Your task to perform on an android device: turn on airplane mode Image 0: 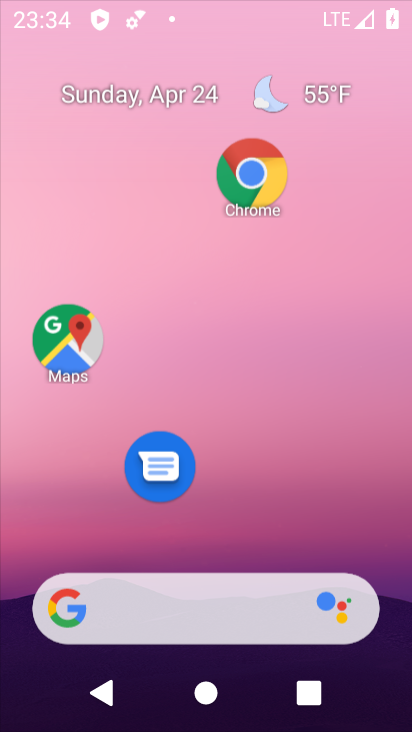
Step 0: drag from (237, 274) to (240, 47)
Your task to perform on an android device: turn on airplane mode Image 1: 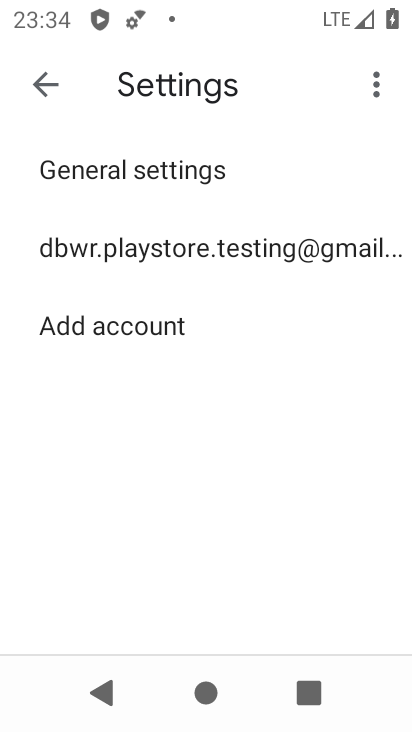
Step 1: press home button
Your task to perform on an android device: turn on airplane mode Image 2: 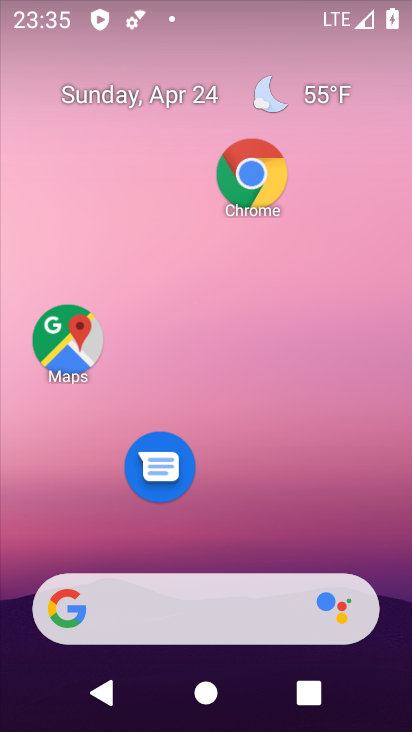
Step 2: drag from (221, 476) to (237, 56)
Your task to perform on an android device: turn on airplane mode Image 3: 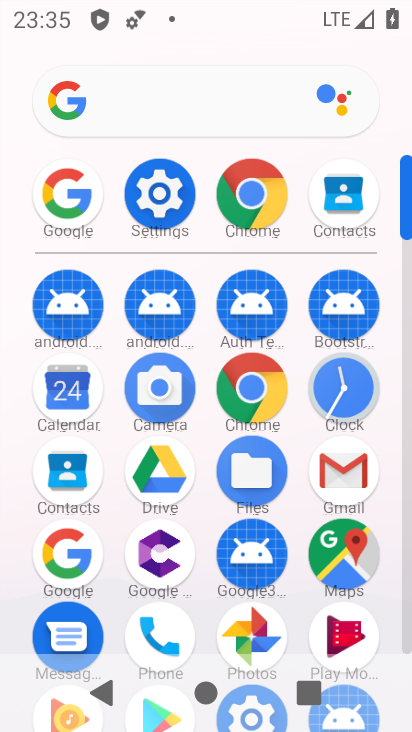
Step 3: click (160, 189)
Your task to perform on an android device: turn on airplane mode Image 4: 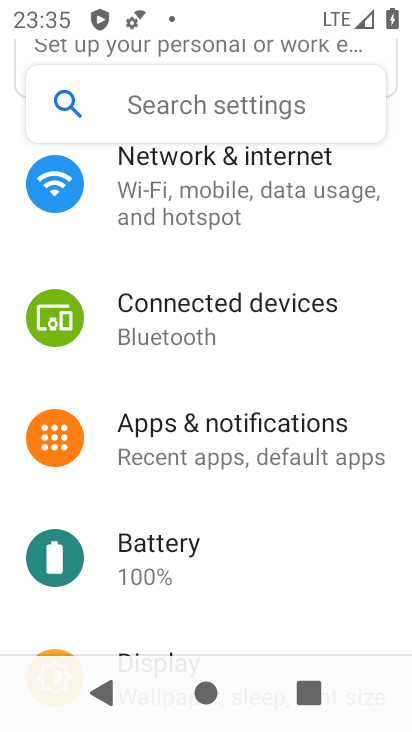
Step 4: click (201, 211)
Your task to perform on an android device: turn on airplane mode Image 5: 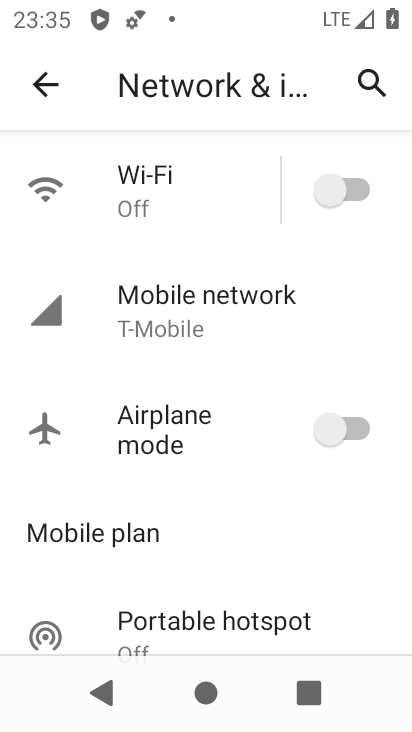
Step 5: click (354, 427)
Your task to perform on an android device: turn on airplane mode Image 6: 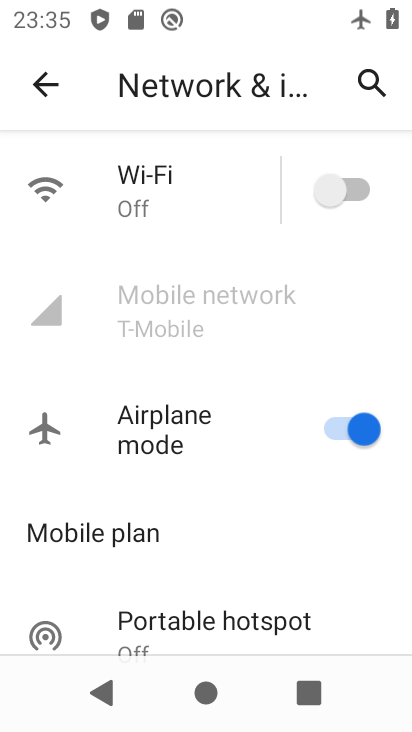
Step 6: task complete